Your task to perform on an android device: turn vacation reply on in the gmail app Image 0: 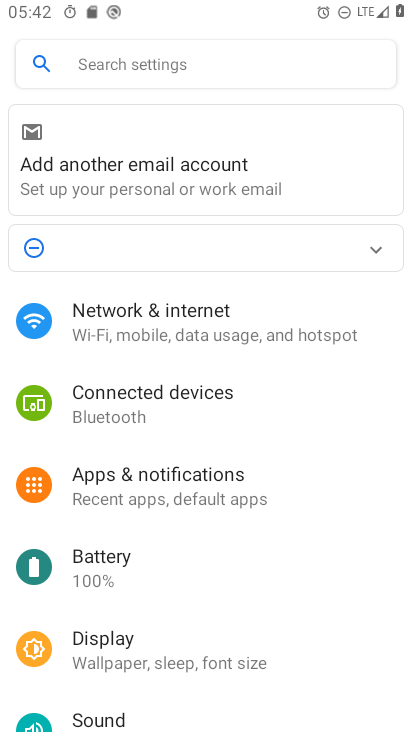
Step 0: press home button
Your task to perform on an android device: turn vacation reply on in the gmail app Image 1: 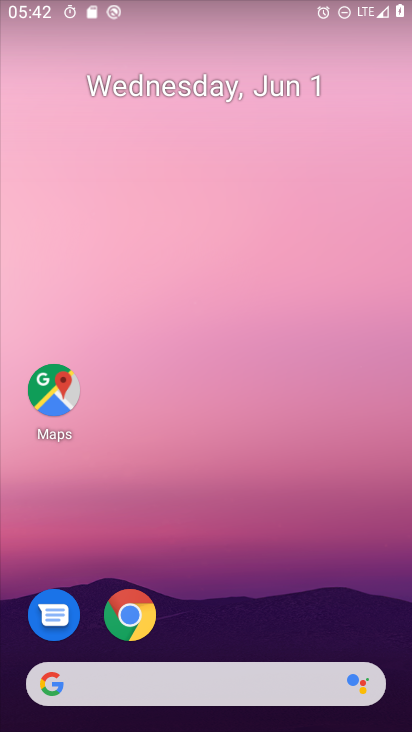
Step 1: drag from (306, 676) to (302, 30)
Your task to perform on an android device: turn vacation reply on in the gmail app Image 2: 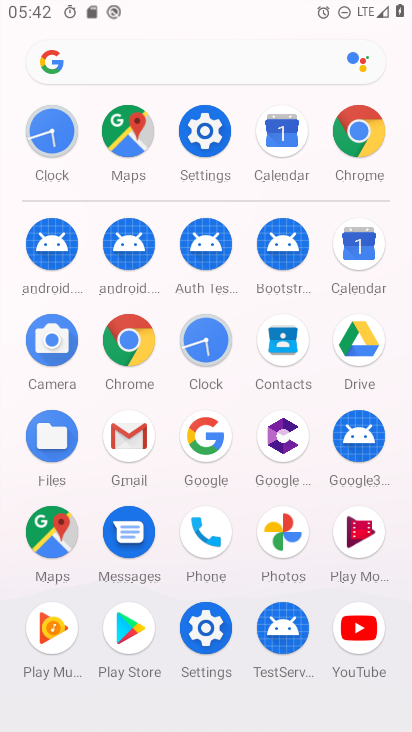
Step 2: click (125, 432)
Your task to perform on an android device: turn vacation reply on in the gmail app Image 3: 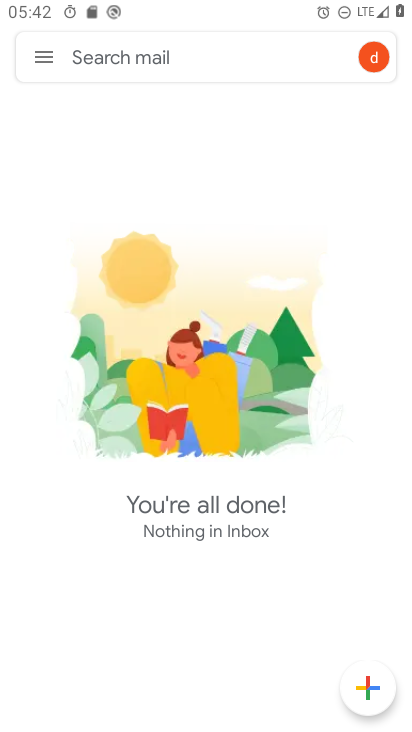
Step 3: click (35, 53)
Your task to perform on an android device: turn vacation reply on in the gmail app Image 4: 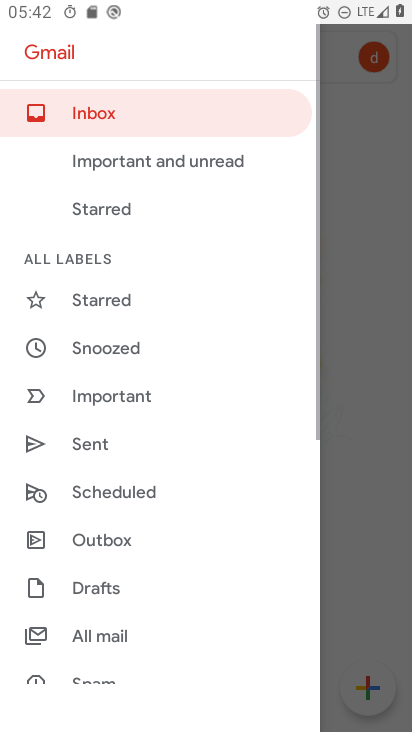
Step 4: drag from (123, 619) to (160, 188)
Your task to perform on an android device: turn vacation reply on in the gmail app Image 5: 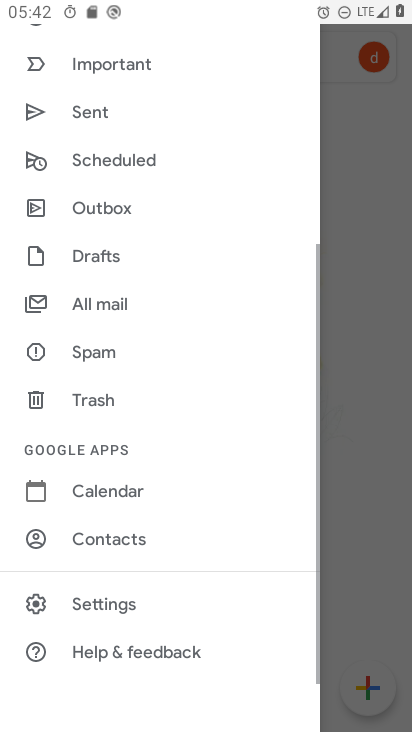
Step 5: click (125, 598)
Your task to perform on an android device: turn vacation reply on in the gmail app Image 6: 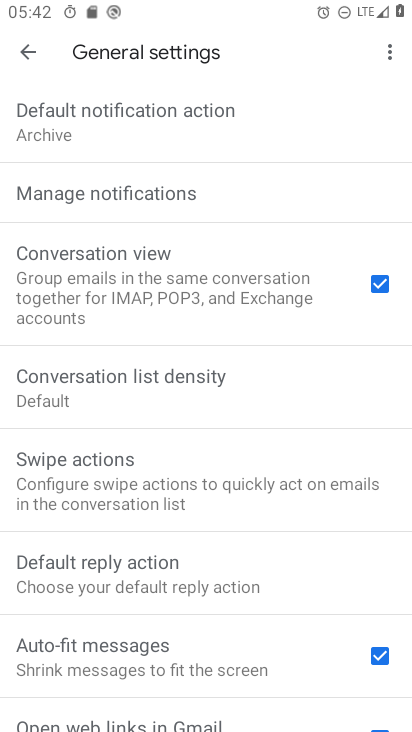
Step 6: drag from (180, 170) to (177, 518)
Your task to perform on an android device: turn vacation reply on in the gmail app Image 7: 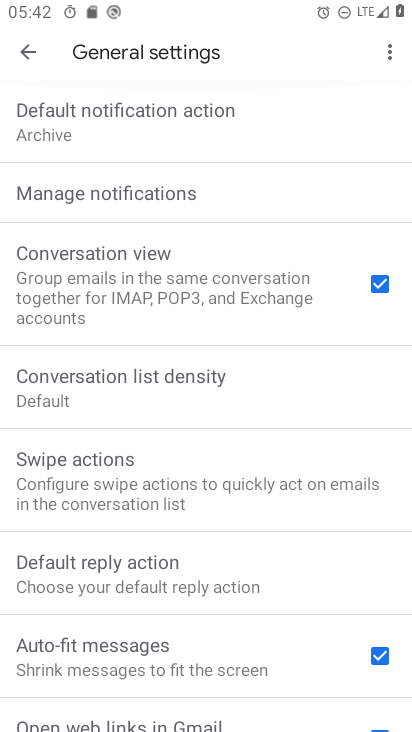
Step 7: drag from (177, 575) to (236, 44)
Your task to perform on an android device: turn vacation reply on in the gmail app Image 8: 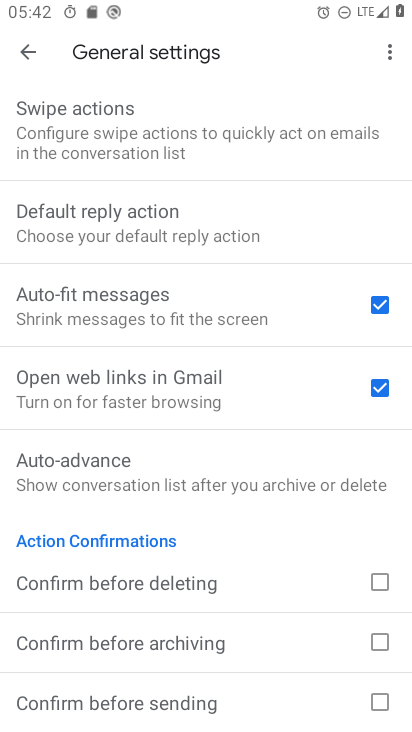
Step 8: press back button
Your task to perform on an android device: turn vacation reply on in the gmail app Image 9: 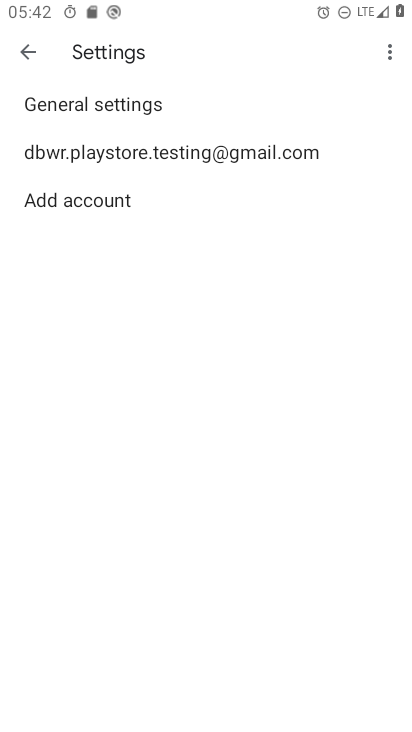
Step 9: click (252, 162)
Your task to perform on an android device: turn vacation reply on in the gmail app Image 10: 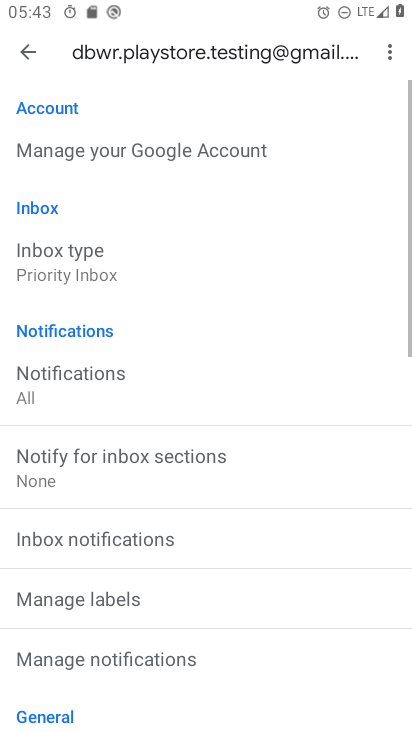
Step 10: drag from (231, 656) to (260, 136)
Your task to perform on an android device: turn vacation reply on in the gmail app Image 11: 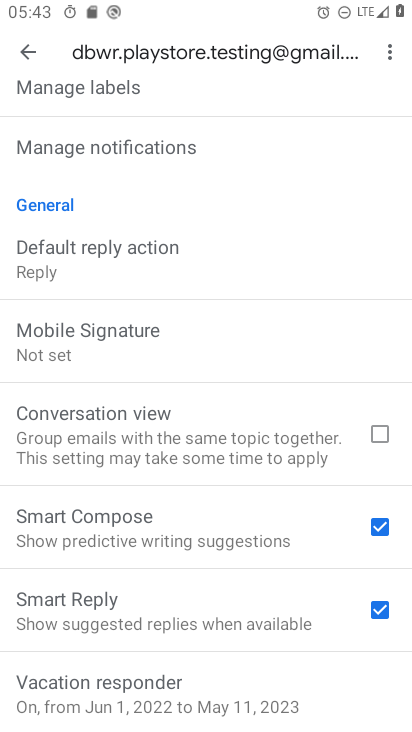
Step 11: click (195, 691)
Your task to perform on an android device: turn vacation reply on in the gmail app Image 12: 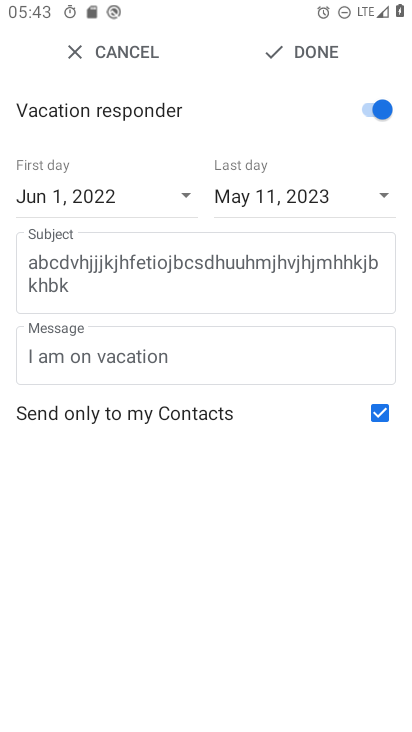
Step 12: task complete